Your task to perform on an android device: Search for jbl flip 4 on costco.com, select the first entry, add it to the cart, then select checkout. Image 0: 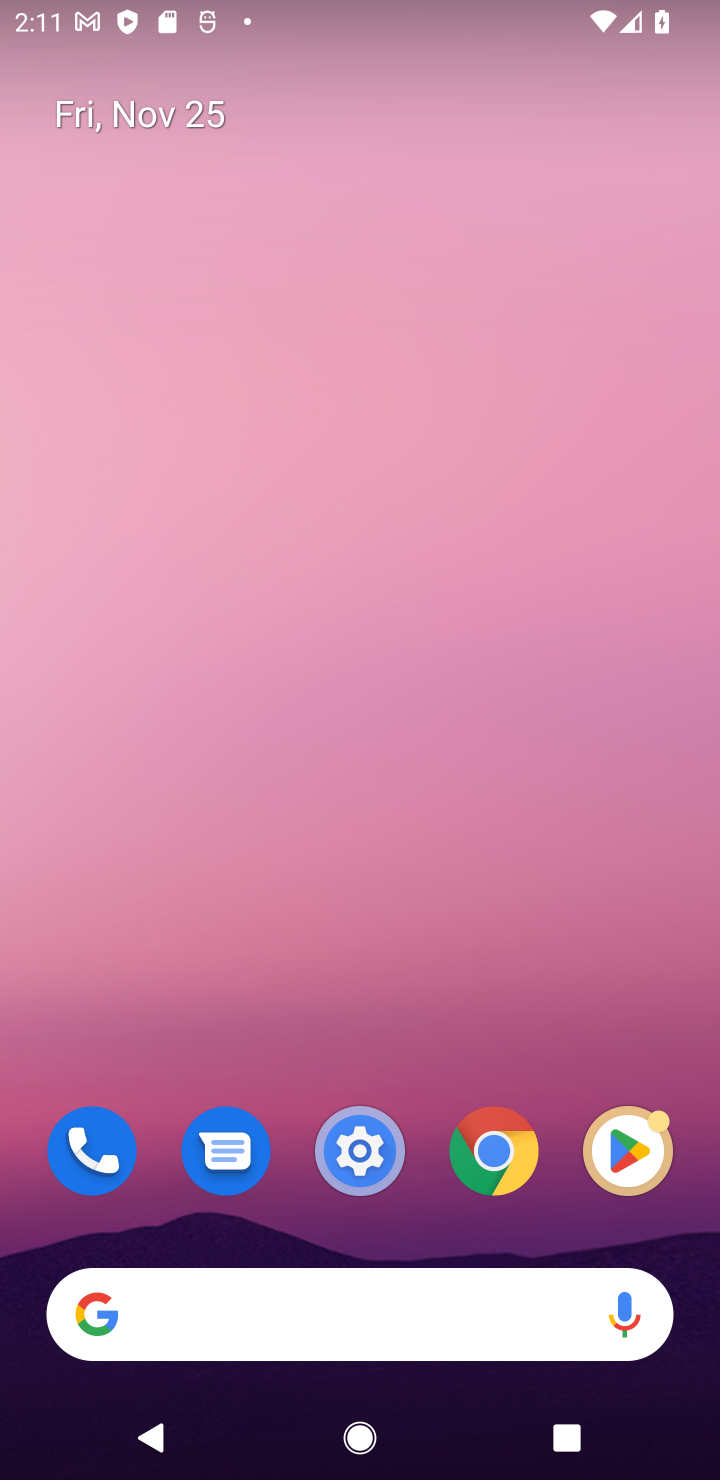
Step 0: click (259, 1330)
Your task to perform on an android device: Search for jbl flip 4 on costco.com, select the first entry, add it to the cart, then select checkout. Image 1: 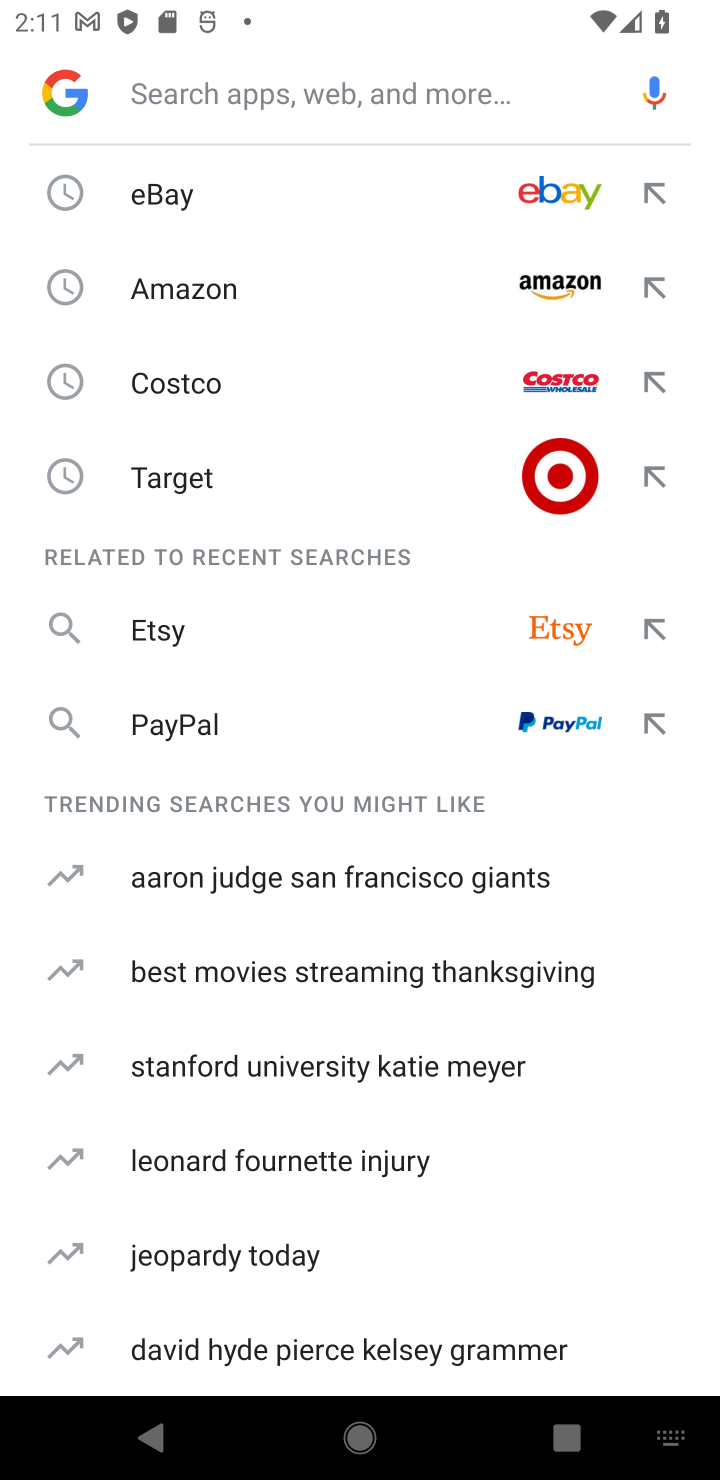
Step 1: type "costco.com"
Your task to perform on an android device: Search for jbl flip 4 on costco.com, select the first entry, add it to the cart, then select checkout. Image 2: 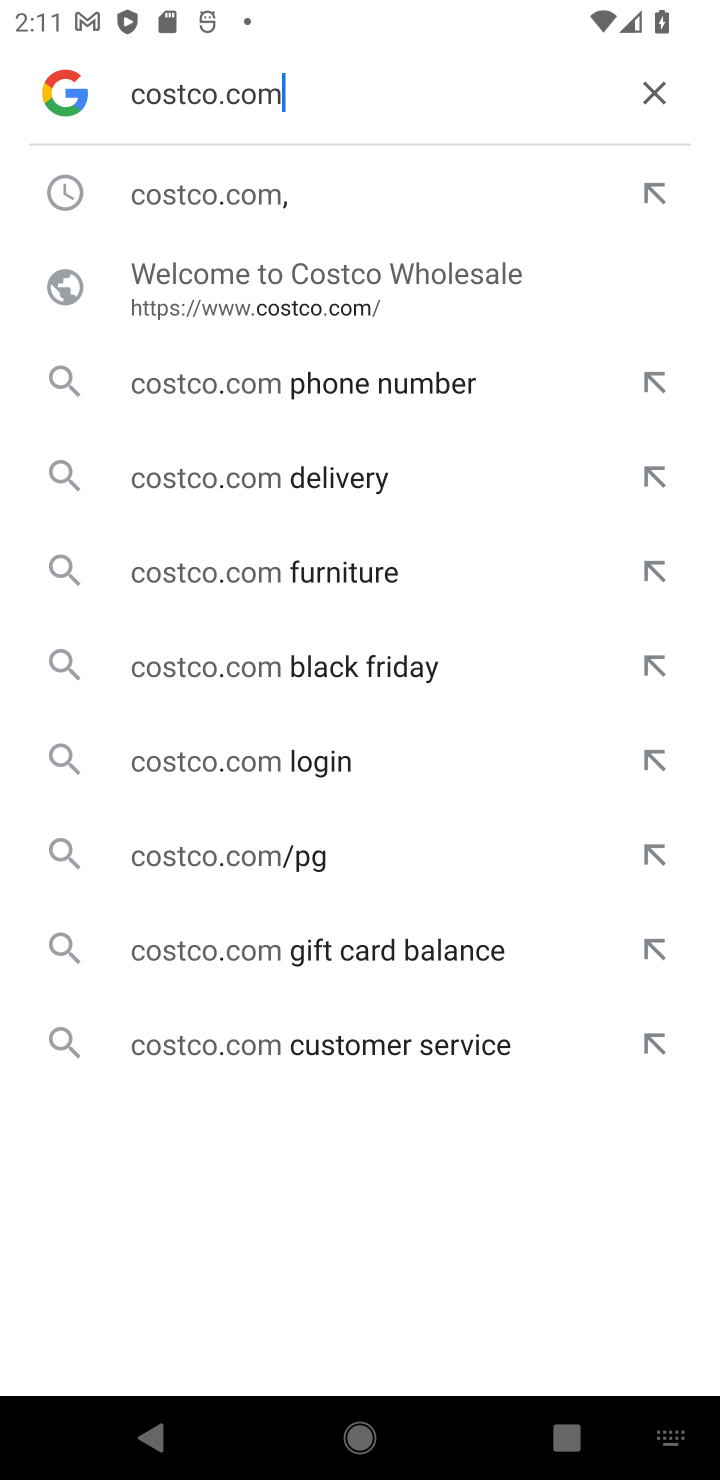
Step 2: click (376, 189)
Your task to perform on an android device: Search for jbl flip 4 on costco.com, select the first entry, add it to the cart, then select checkout. Image 3: 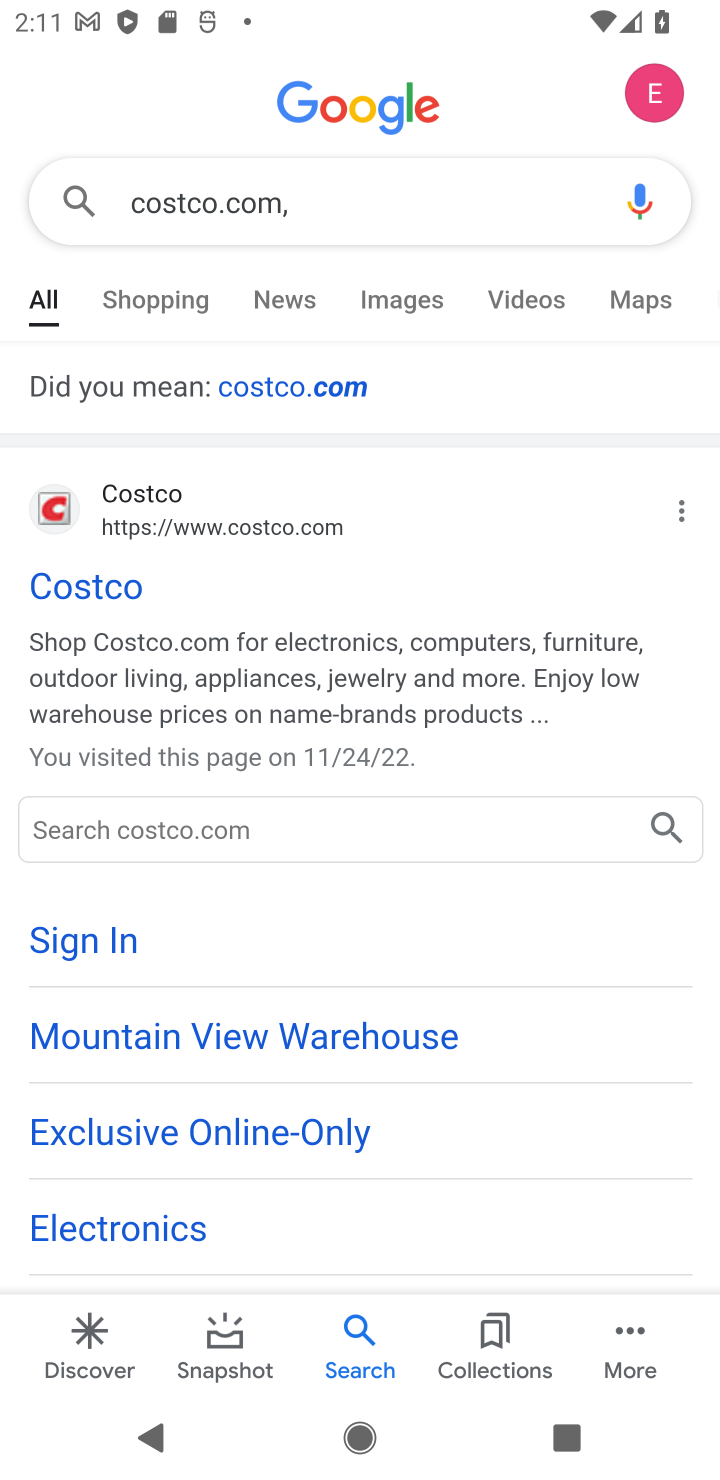
Step 3: click (105, 605)
Your task to perform on an android device: Search for jbl flip 4 on costco.com, select the first entry, add it to the cart, then select checkout. Image 4: 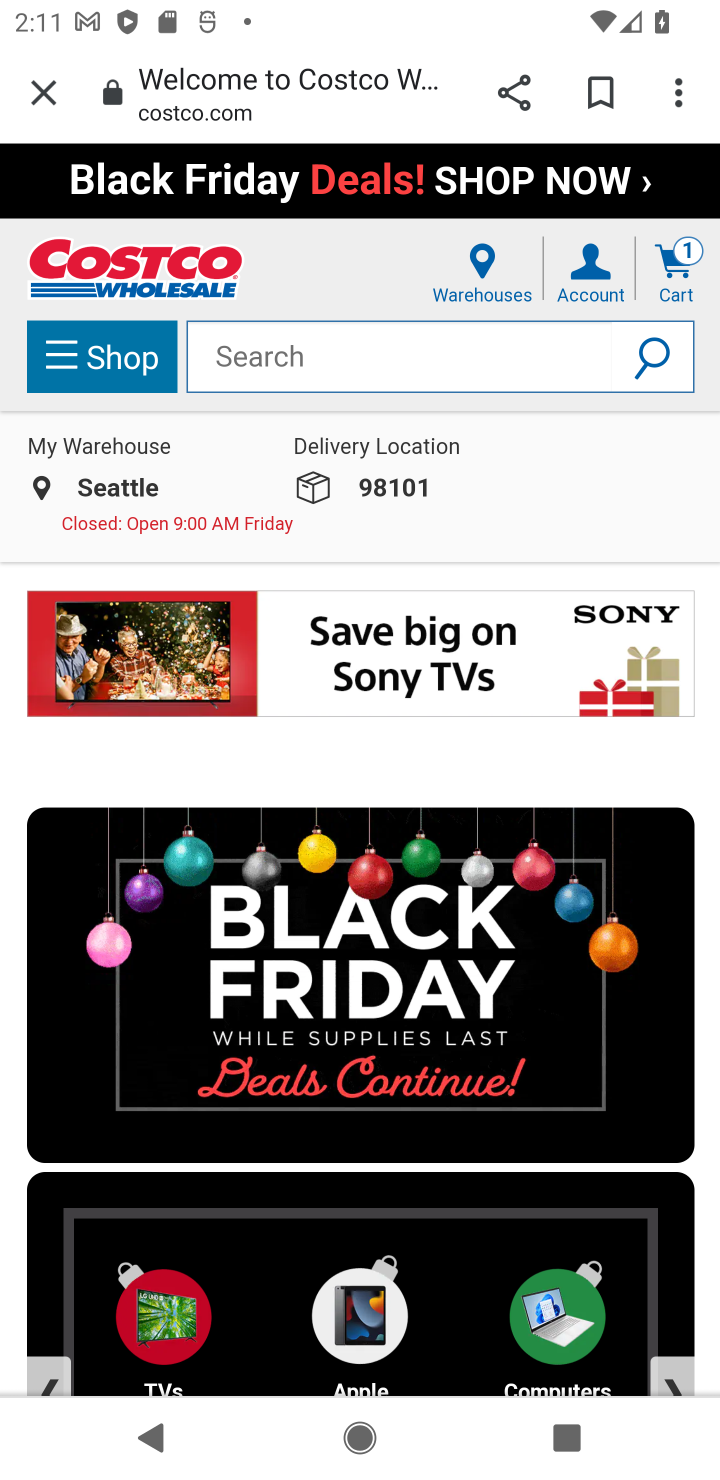
Step 4: task complete